Your task to perform on an android device: all mails in gmail Image 0: 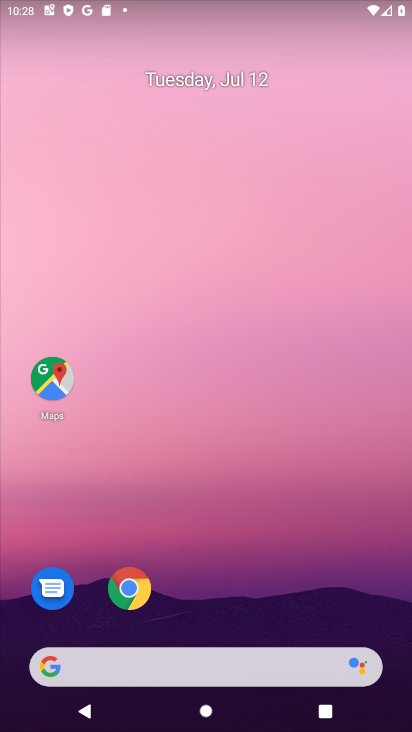
Step 0: drag from (230, 582) to (206, 51)
Your task to perform on an android device: all mails in gmail Image 1: 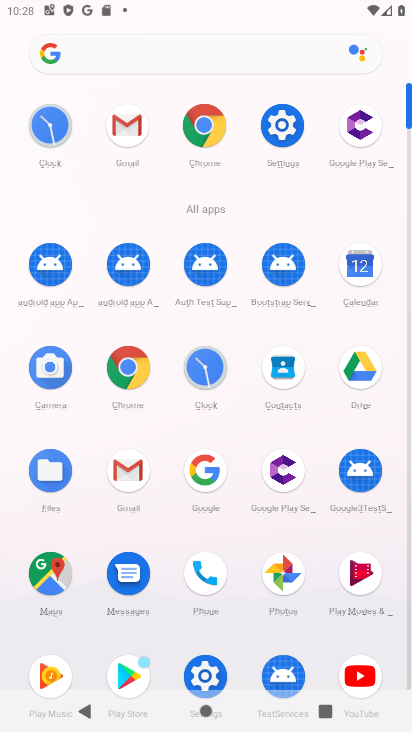
Step 1: click (123, 470)
Your task to perform on an android device: all mails in gmail Image 2: 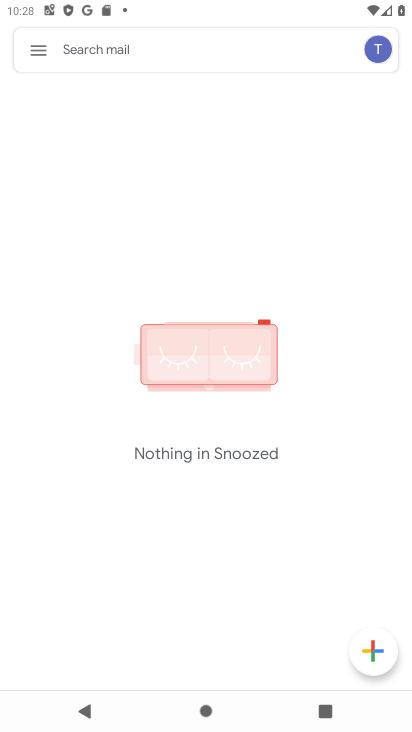
Step 2: click (38, 49)
Your task to perform on an android device: all mails in gmail Image 3: 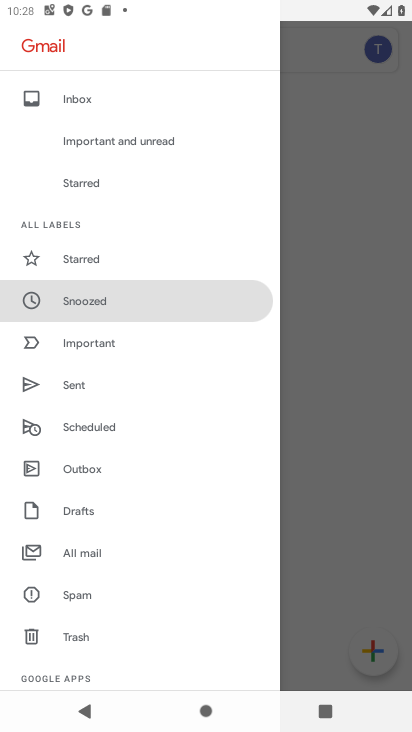
Step 3: click (57, 551)
Your task to perform on an android device: all mails in gmail Image 4: 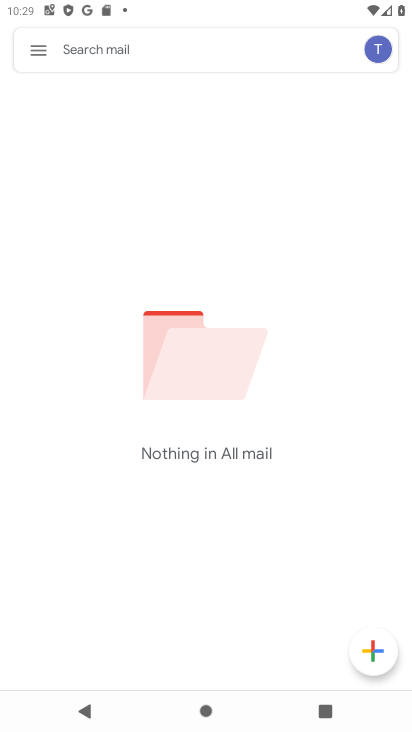
Step 4: task complete